Your task to perform on an android device: Open sound settings Image 0: 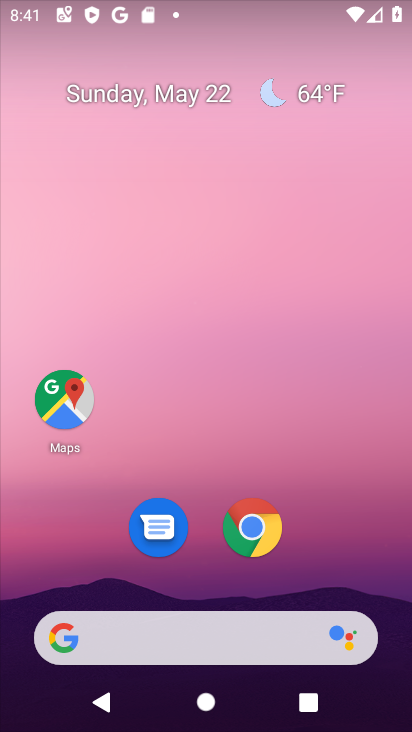
Step 0: press home button
Your task to perform on an android device: Open sound settings Image 1: 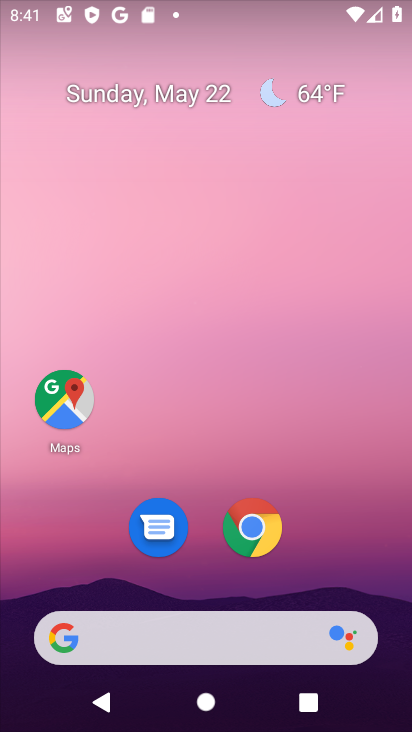
Step 1: drag from (202, 580) to (235, 170)
Your task to perform on an android device: Open sound settings Image 2: 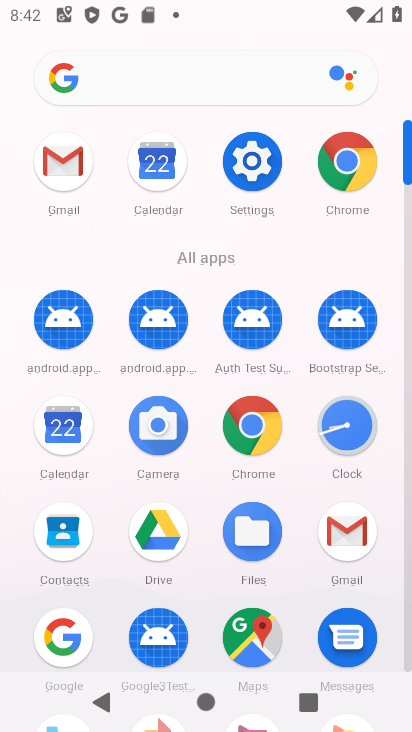
Step 2: click (249, 167)
Your task to perform on an android device: Open sound settings Image 3: 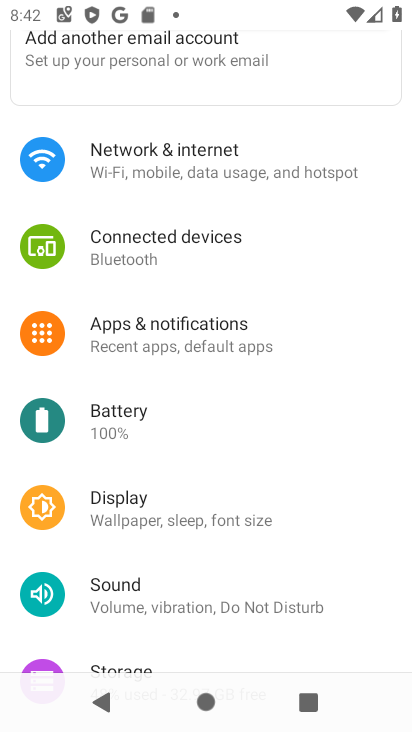
Step 3: click (129, 592)
Your task to perform on an android device: Open sound settings Image 4: 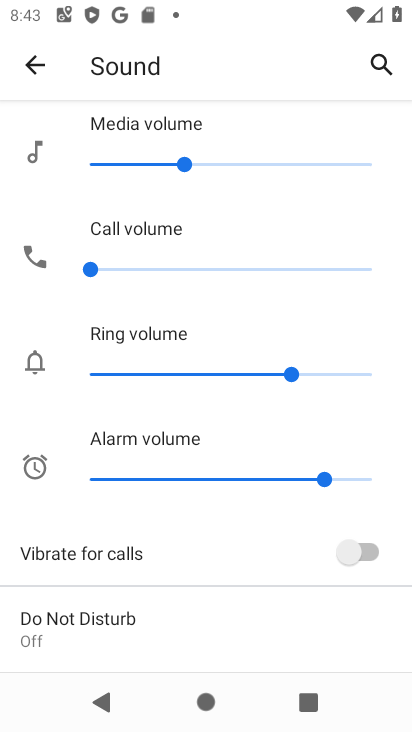
Step 4: task complete